Your task to perform on an android device: Find coffee shops on Maps Image 0: 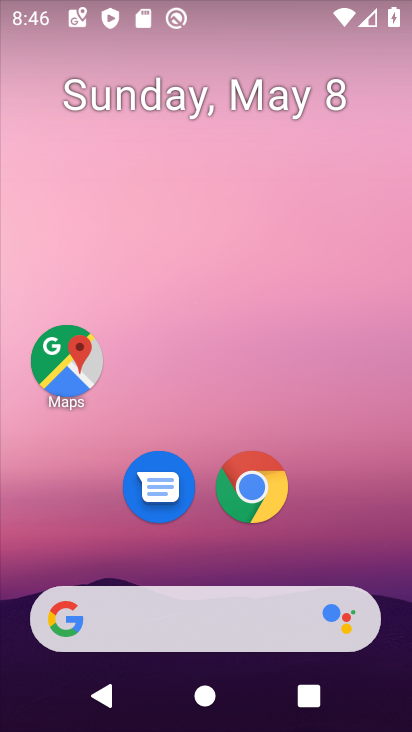
Step 0: click (73, 363)
Your task to perform on an android device: Find coffee shops on Maps Image 1: 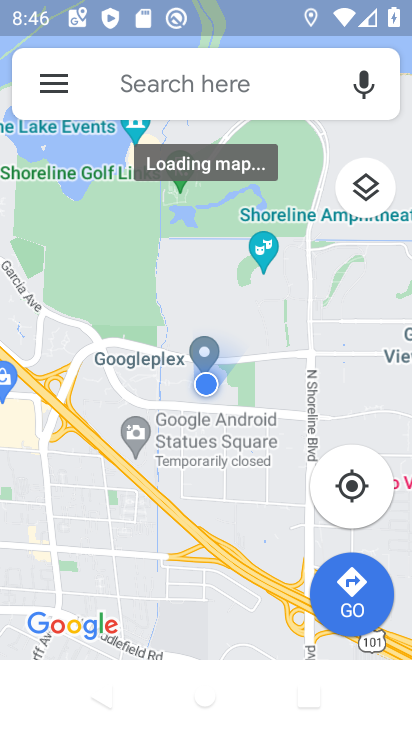
Step 1: click (188, 99)
Your task to perform on an android device: Find coffee shops on Maps Image 2: 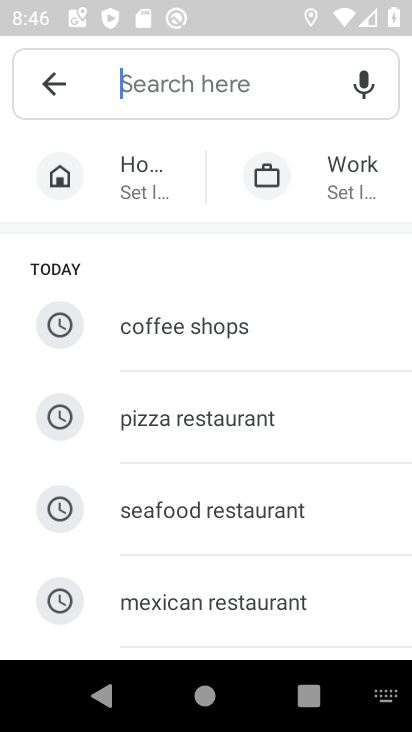
Step 2: click (151, 333)
Your task to perform on an android device: Find coffee shops on Maps Image 3: 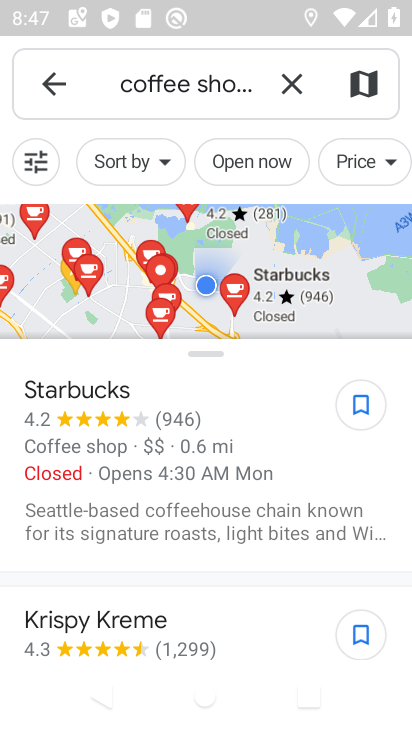
Step 3: task complete